Your task to perform on an android device: change your default location settings in chrome Image 0: 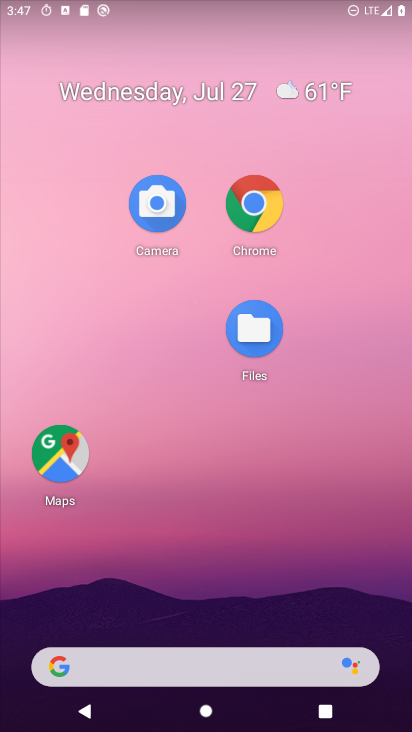
Step 0: click (245, 196)
Your task to perform on an android device: change your default location settings in chrome Image 1: 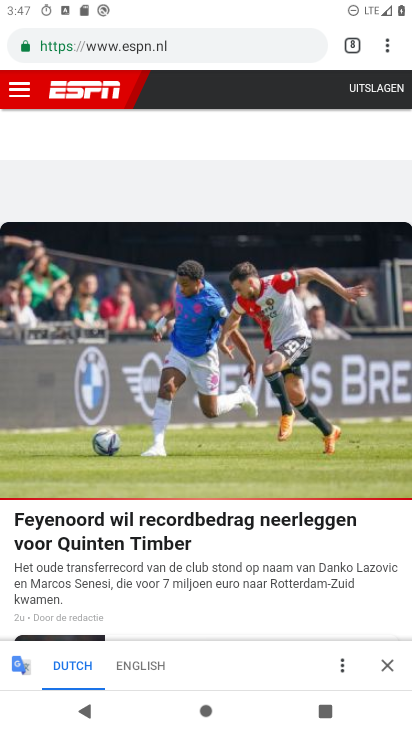
Step 1: click (388, 37)
Your task to perform on an android device: change your default location settings in chrome Image 2: 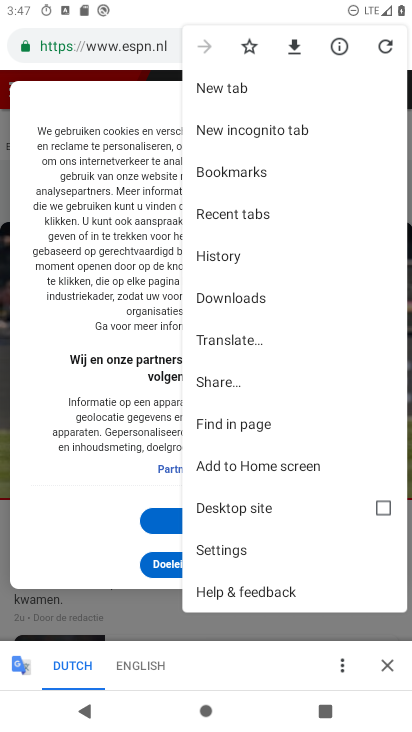
Step 2: click (243, 551)
Your task to perform on an android device: change your default location settings in chrome Image 3: 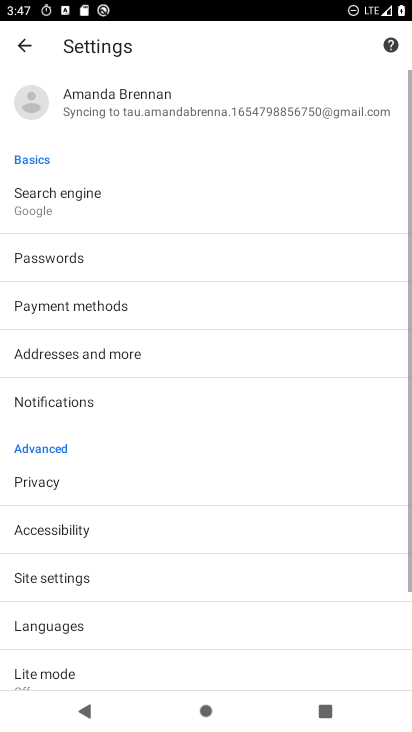
Step 3: drag from (85, 218) to (114, 526)
Your task to perform on an android device: change your default location settings in chrome Image 4: 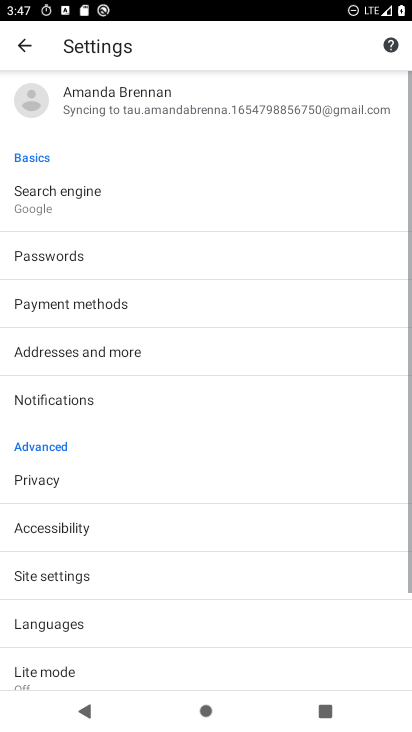
Step 4: click (69, 576)
Your task to perform on an android device: change your default location settings in chrome Image 5: 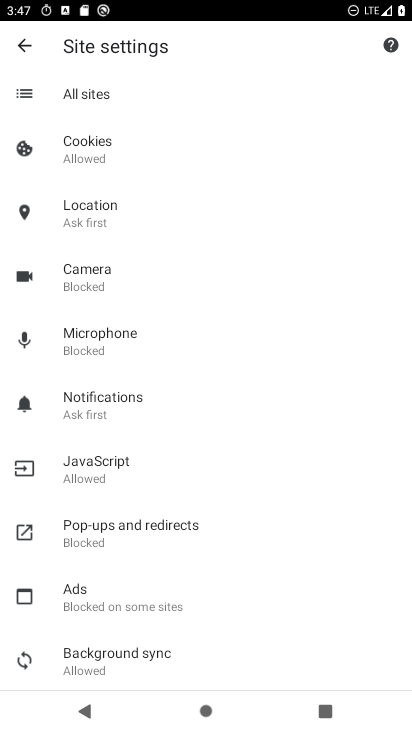
Step 5: click (126, 216)
Your task to perform on an android device: change your default location settings in chrome Image 6: 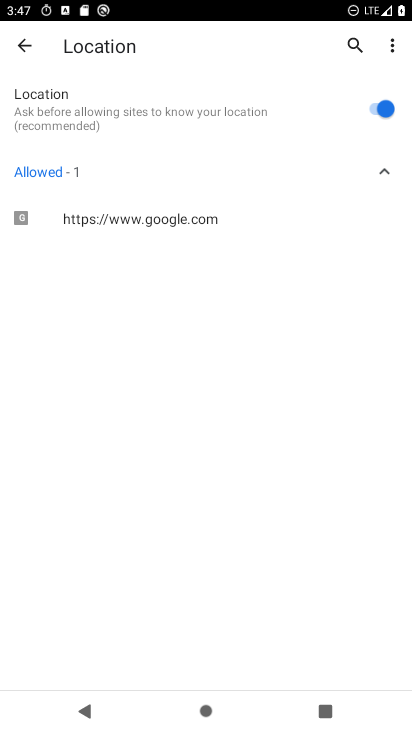
Step 6: click (371, 107)
Your task to perform on an android device: change your default location settings in chrome Image 7: 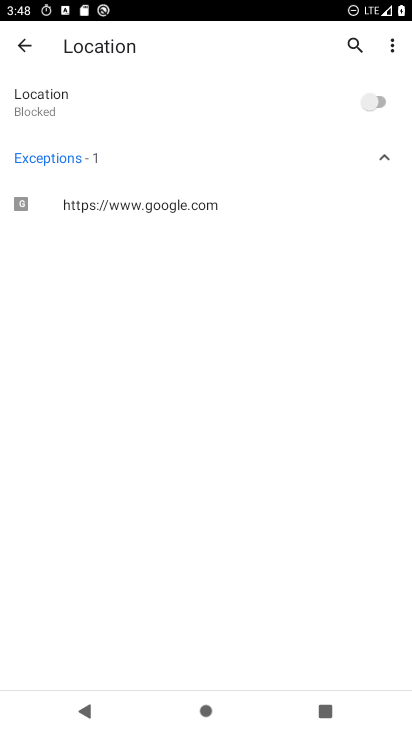
Step 7: task complete